Your task to perform on an android device: turn on location history Image 0: 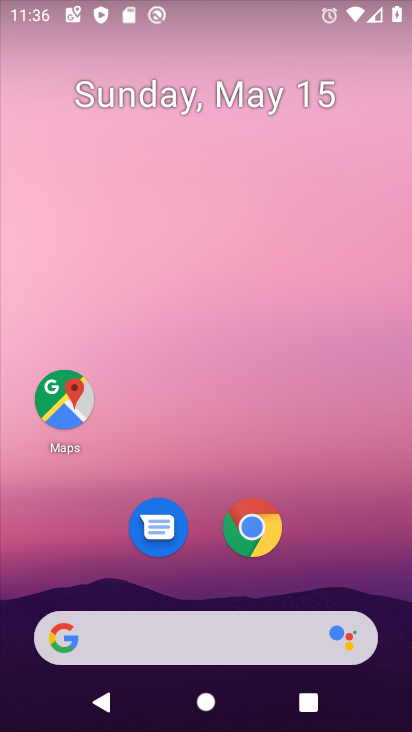
Step 0: drag from (337, 573) to (294, 247)
Your task to perform on an android device: turn on location history Image 1: 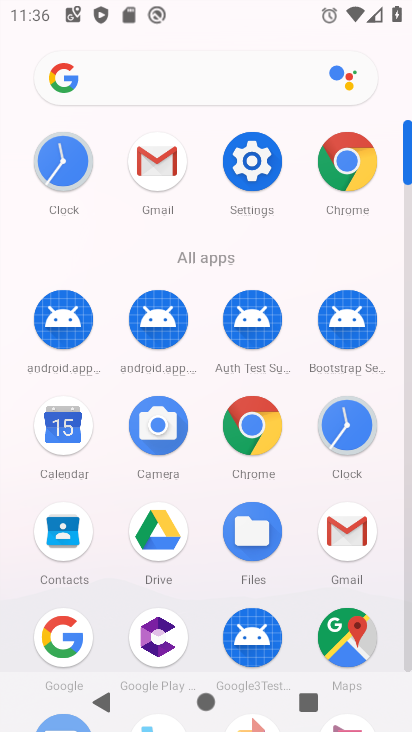
Step 1: click (237, 188)
Your task to perform on an android device: turn on location history Image 2: 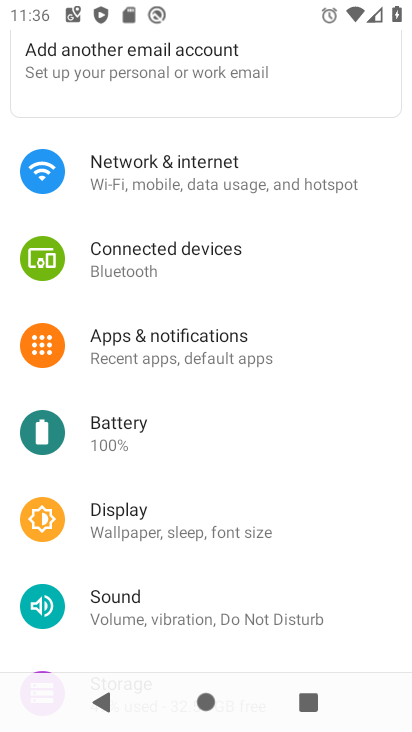
Step 2: drag from (257, 578) to (269, 223)
Your task to perform on an android device: turn on location history Image 3: 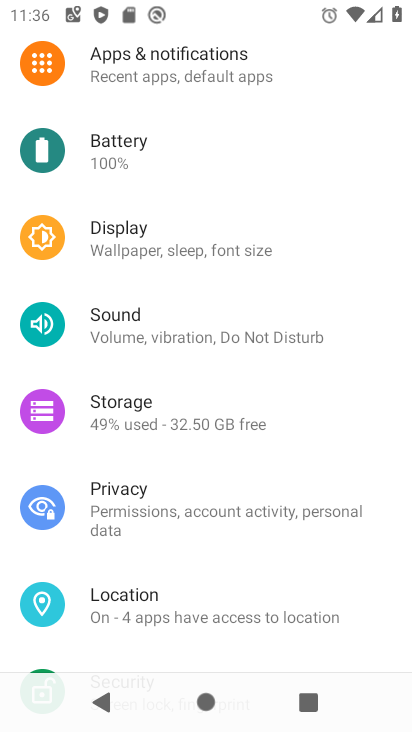
Step 3: click (216, 596)
Your task to perform on an android device: turn on location history Image 4: 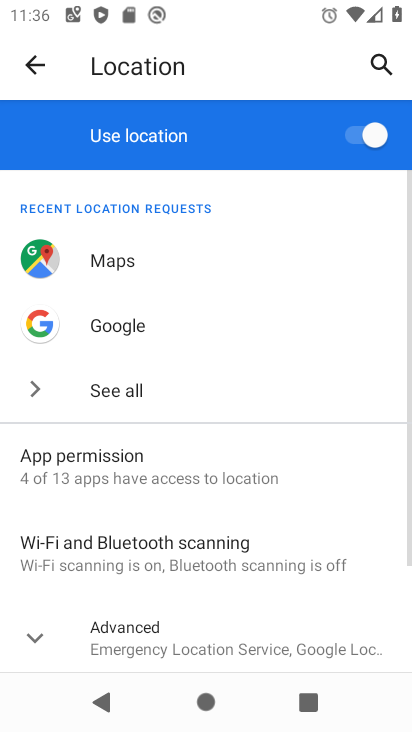
Step 4: task complete